Your task to perform on an android device: turn notification dots off Image 0: 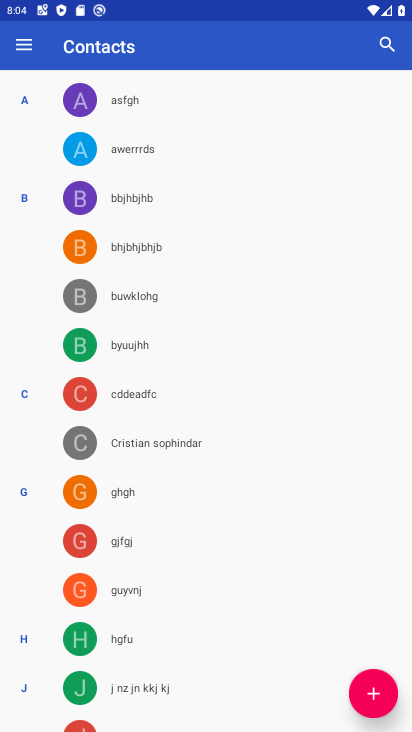
Step 0: press home button
Your task to perform on an android device: turn notification dots off Image 1: 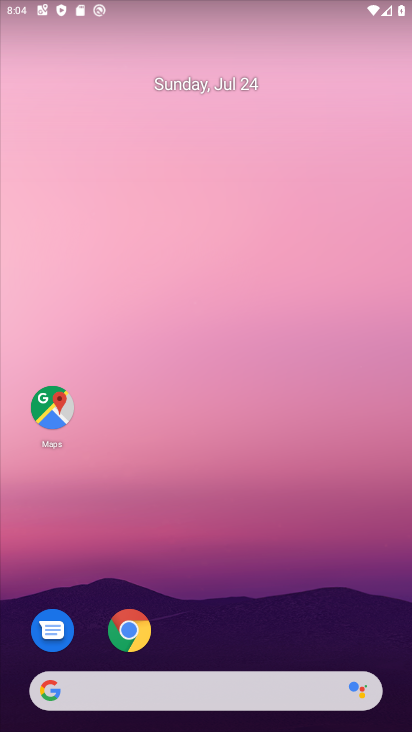
Step 1: drag from (204, 636) to (200, 191)
Your task to perform on an android device: turn notification dots off Image 2: 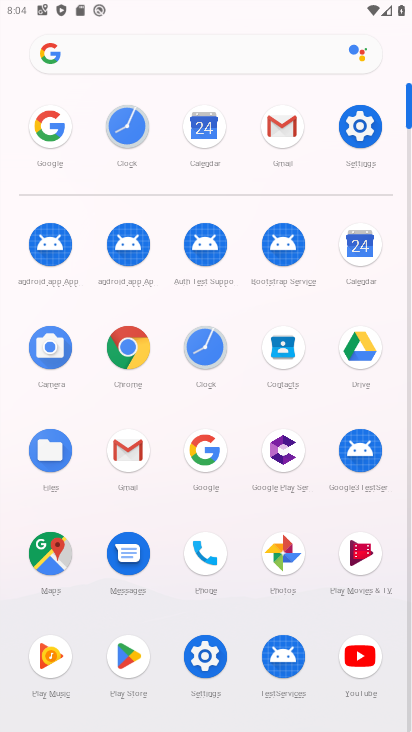
Step 2: click (352, 127)
Your task to perform on an android device: turn notification dots off Image 3: 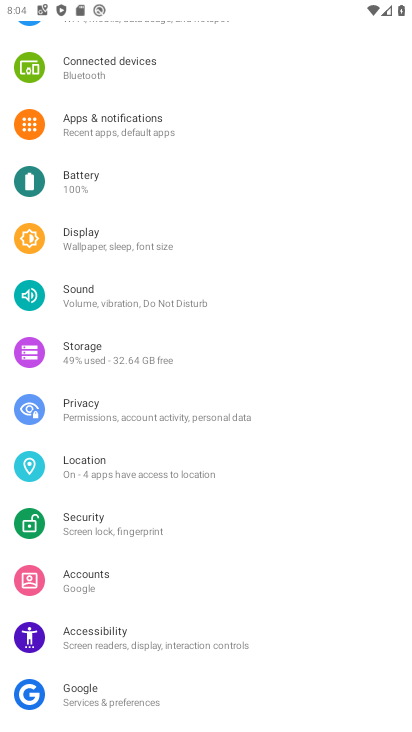
Step 3: click (134, 143)
Your task to perform on an android device: turn notification dots off Image 4: 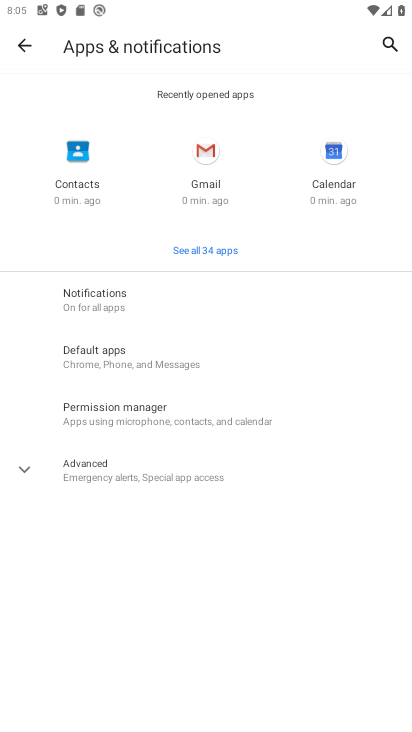
Step 4: click (138, 485)
Your task to perform on an android device: turn notification dots off Image 5: 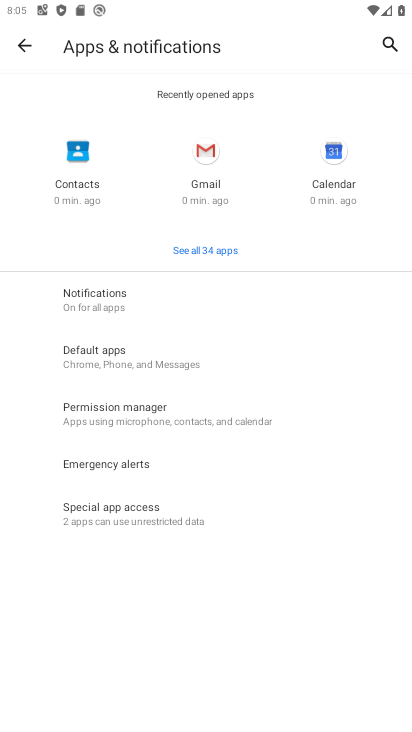
Step 5: click (171, 308)
Your task to perform on an android device: turn notification dots off Image 6: 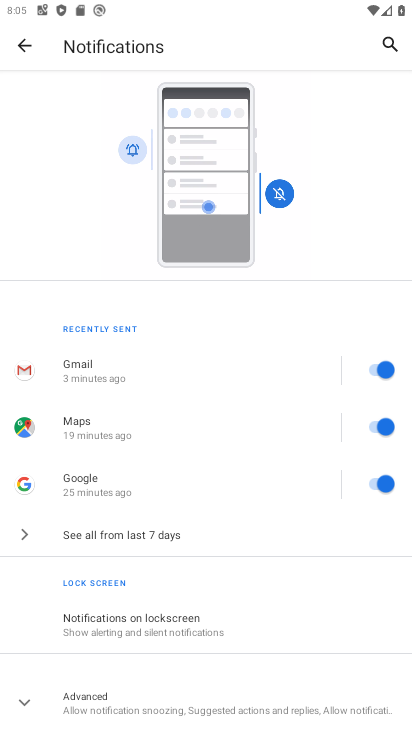
Step 6: drag from (257, 643) to (272, 302)
Your task to perform on an android device: turn notification dots off Image 7: 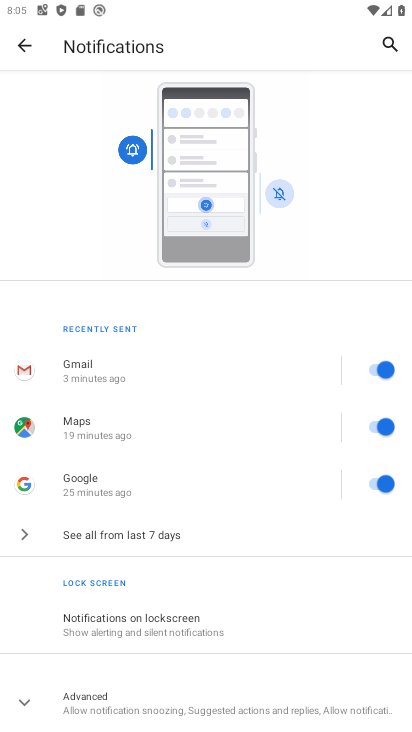
Step 7: click (153, 711)
Your task to perform on an android device: turn notification dots off Image 8: 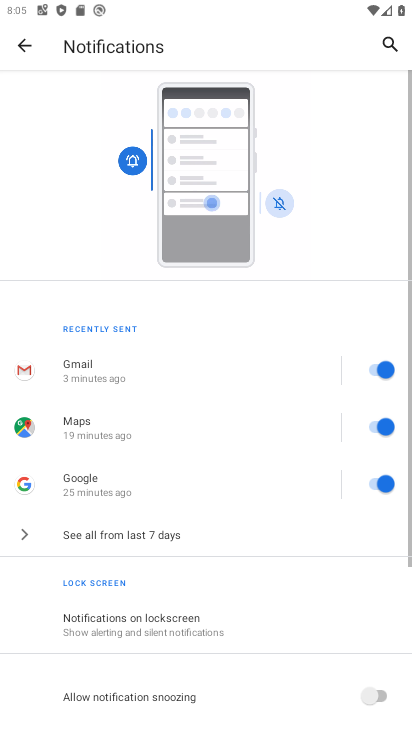
Step 8: task complete